Your task to perform on an android device: Open location settings Image 0: 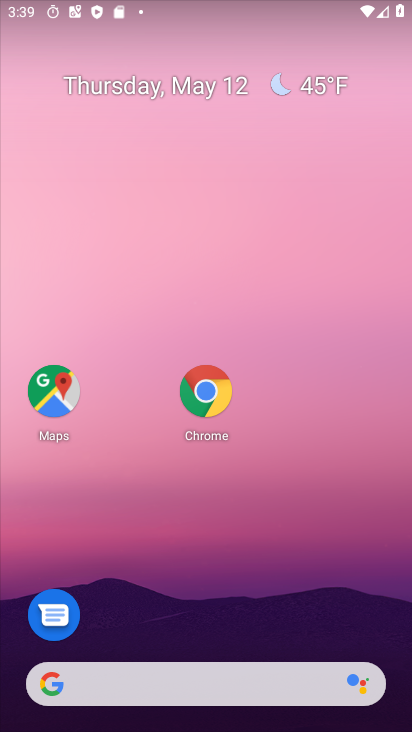
Step 0: drag from (219, 571) to (225, 7)
Your task to perform on an android device: Open location settings Image 1: 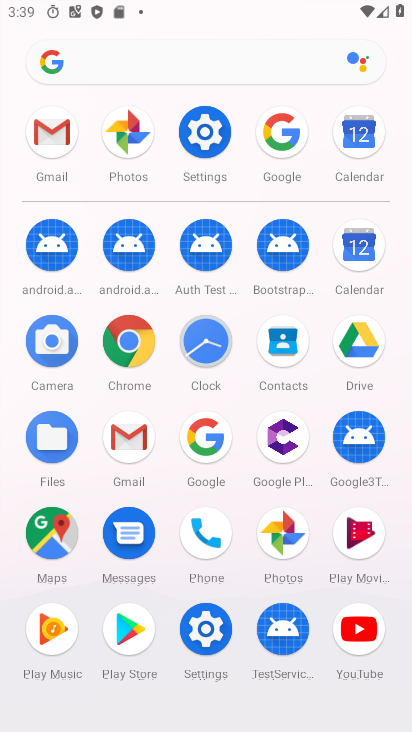
Step 1: click (206, 127)
Your task to perform on an android device: Open location settings Image 2: 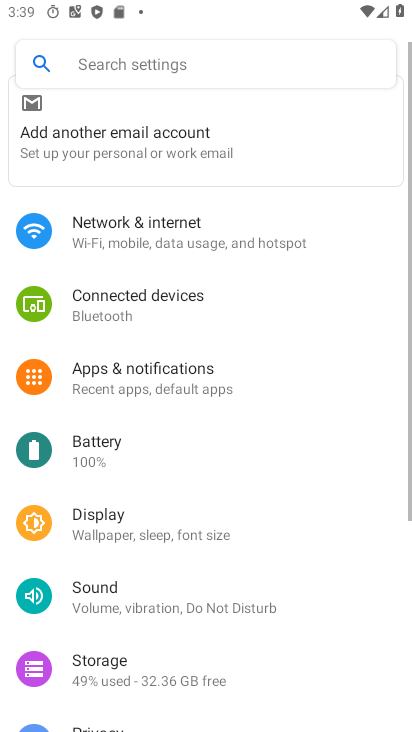
Step 2: drag from (215, 511) to (218, 120)
Your task to perform on an android device: Open location settings Image 3: 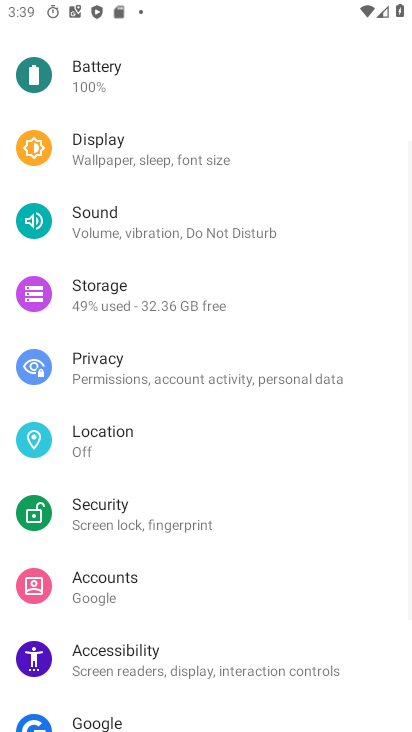
Step 3: click (148, 445)
Your task to perform on an android device: Open location settings Image 4: 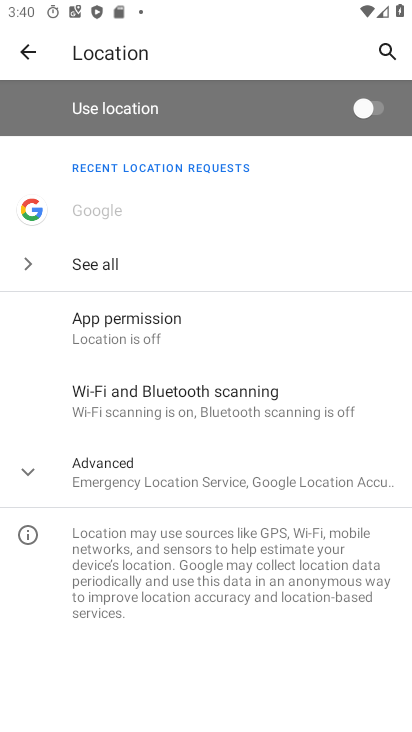
Step 4: task complete